Your task to perform on an android device: What's the weather? Image 0: 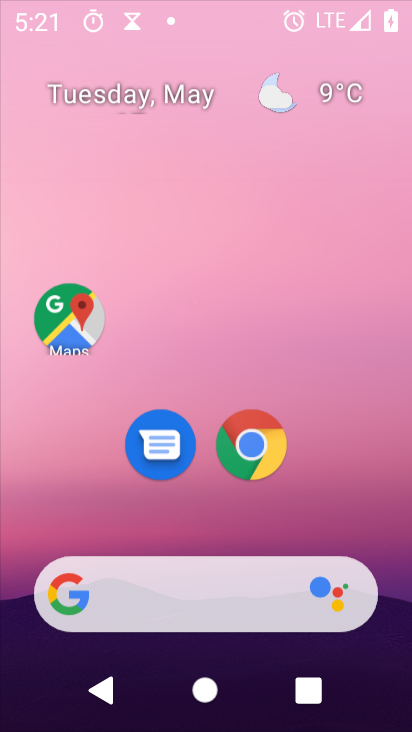
Step 0: click (292, 167)
Your task to perform on an android device: What's the weather? Image 1: 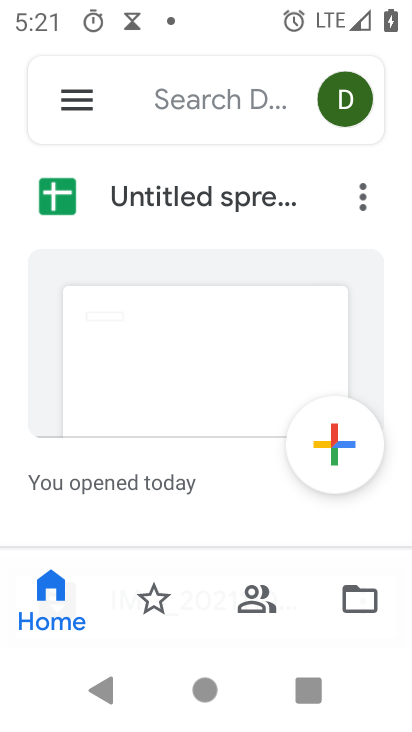
Step 1: press home button
Your task to perform on an android device: What's the weather? Image 2: 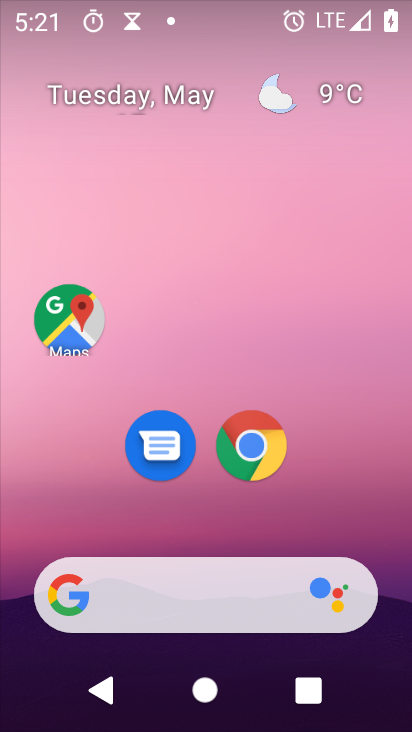
Step 2: click (349, 91)
Your task to perform on an android device: What's the weather? Image 3: 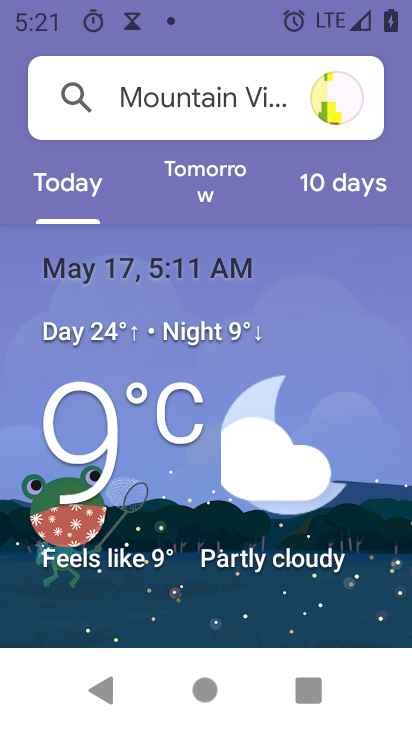
Step 3: task complete